Your task to perform on an android device: turn on airplane mode Image 0: 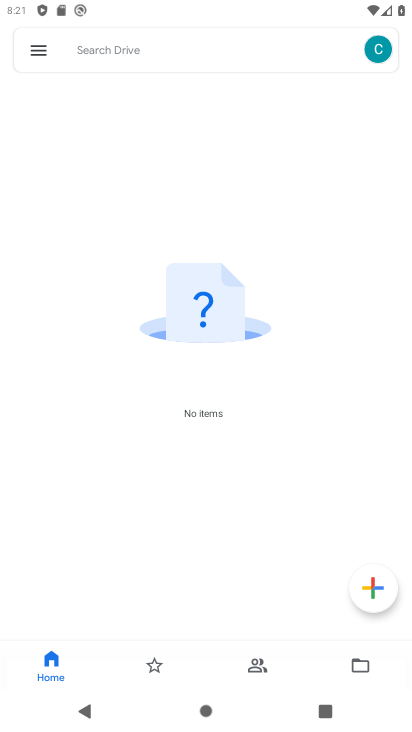
Step 0: press home button
Your task to perform on an android device: turn on airplane mode Image 1: 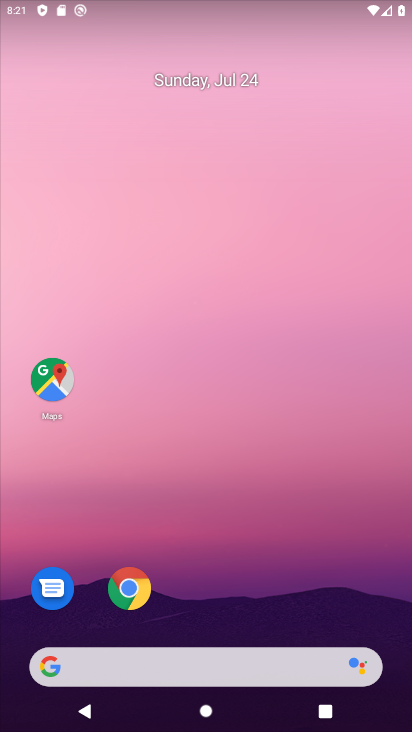
Step 1: drag from (300, 619) to (198, 116)
Your task to perform on an android device: turn on airplane mode Image 2: 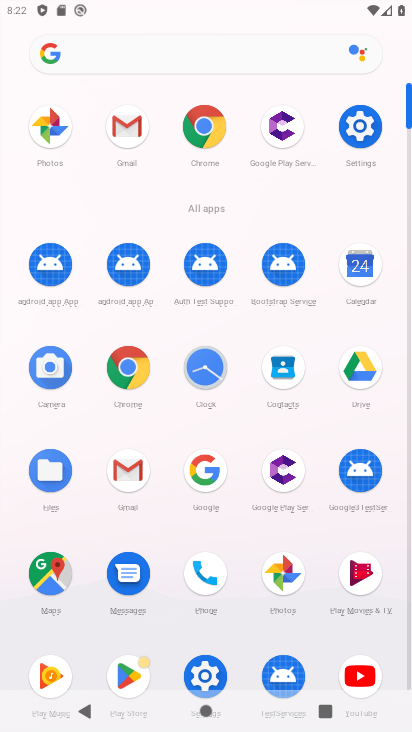
Step 2: click (376, 118)
Your task to perform on an android device: turn on airplane mode Image 3: 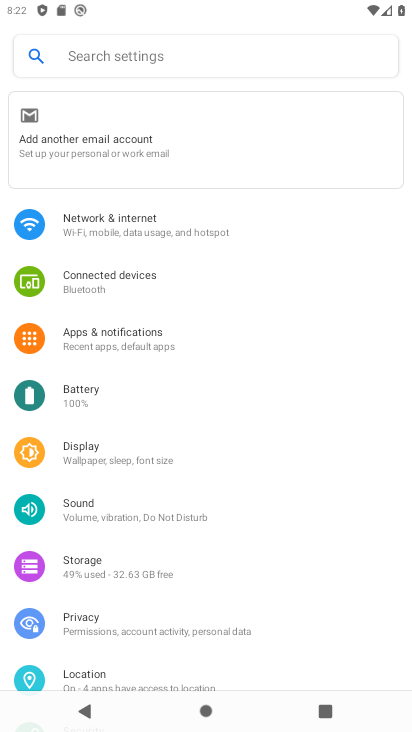
Step 3: click (100, 225)
Your task to perform on an android device: turn on airplane mode Image 4: 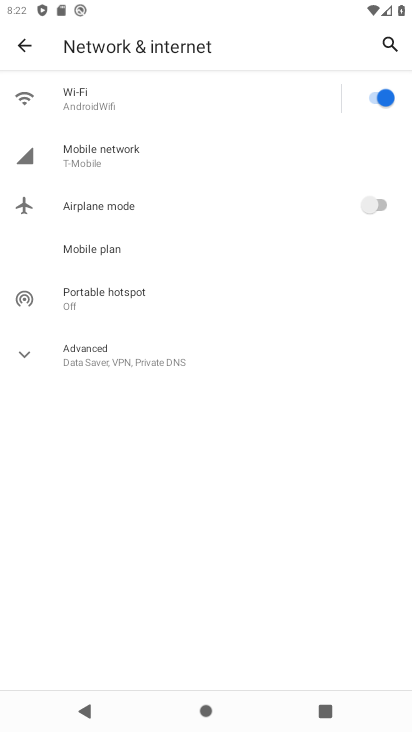
Step 4: click (388, 205)
Your task to perform on an android device: turn on airplane mode Image 5: 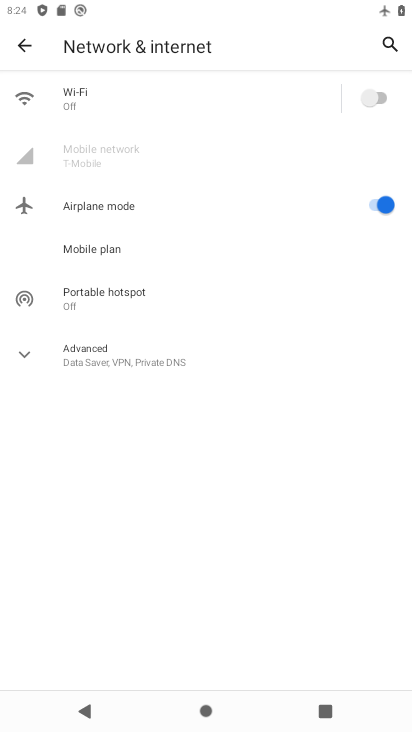
Step 5: task complete